Your task to perform on an android device: Check the weather Image 0: 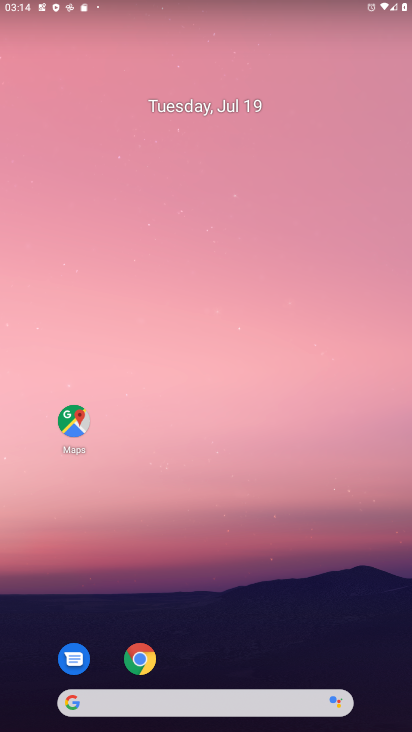
Step 0: press home button
Your task to perform on an android device: Check the weather Image 1: 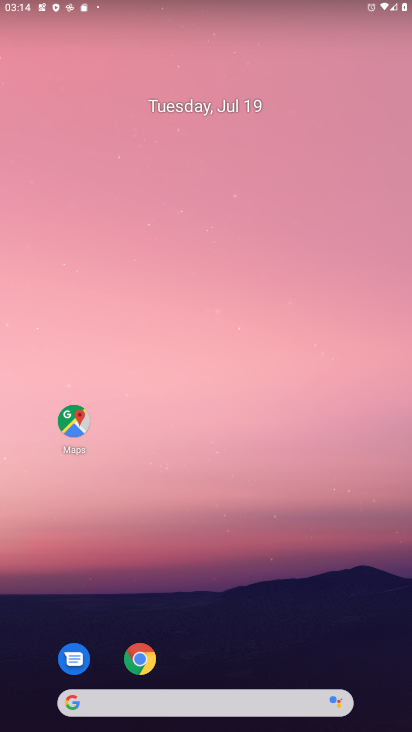
Step 1: click (150, 669)
Your task to perform on an android device: Check the weather Image 2: 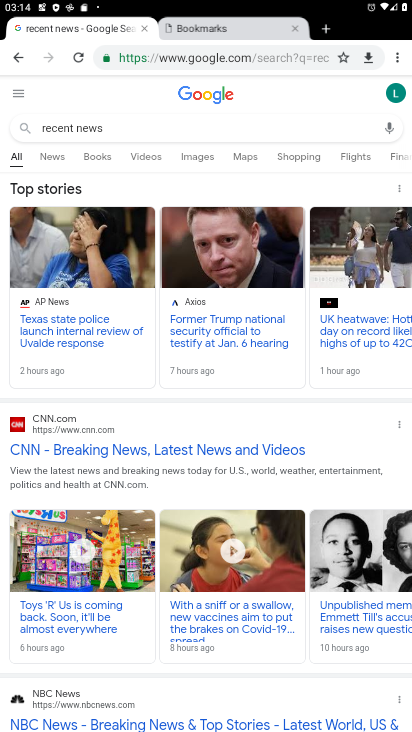
Step 2: click (314, 57)
Your task to perform on an android device: Check the weather Image 3: 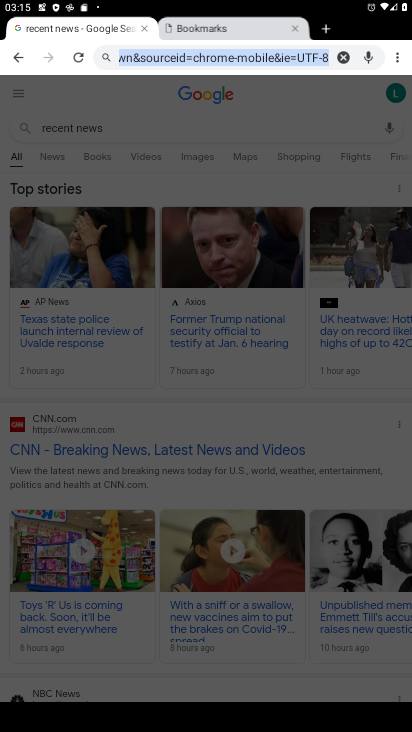
Step 3: type " weather"
Your task to perform on an android device: Check the weather Image 4: 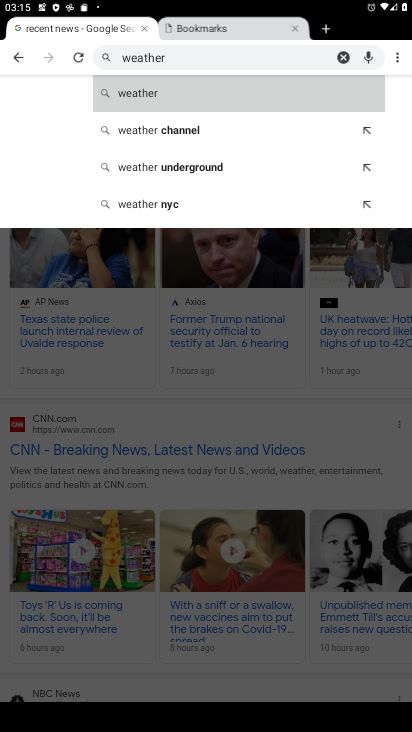
Step 4: click (157, 85)
Your task to perform on an android device: Check the weather Image 5: 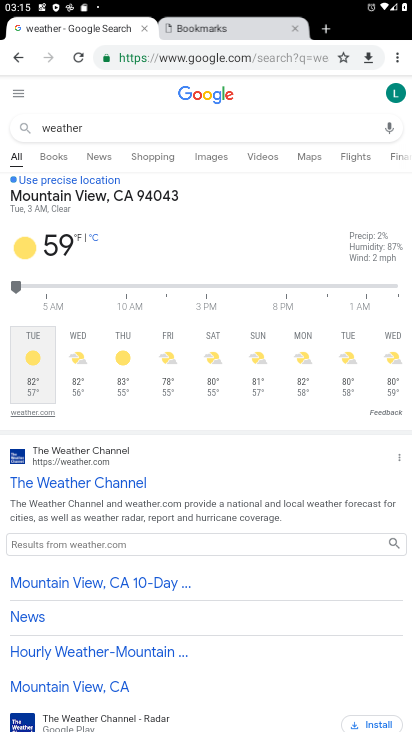
Step 5: task complete